Your task to perform on an android device: turn on javascript in the chrome app Image 0: 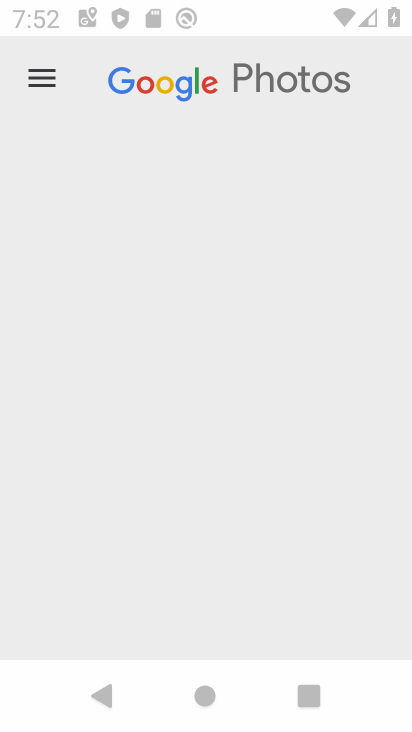
Step 0: press back button
Your task to perform on an android device: turn on javascript in the chrome app Image 1: 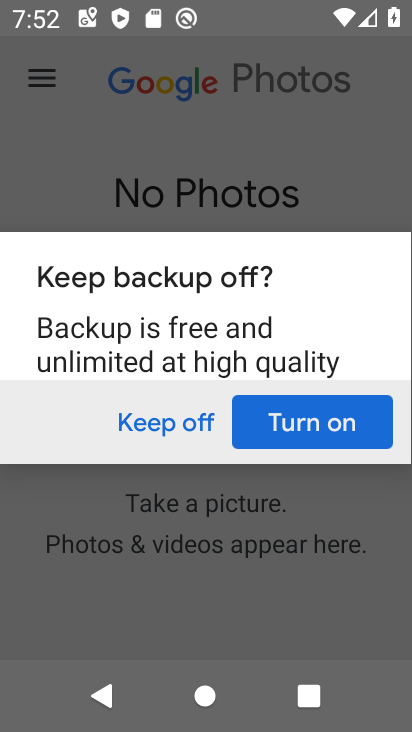
Step 1: press back button
Your task to perform on an android device: turn on javascript in the chrome app Image 2: 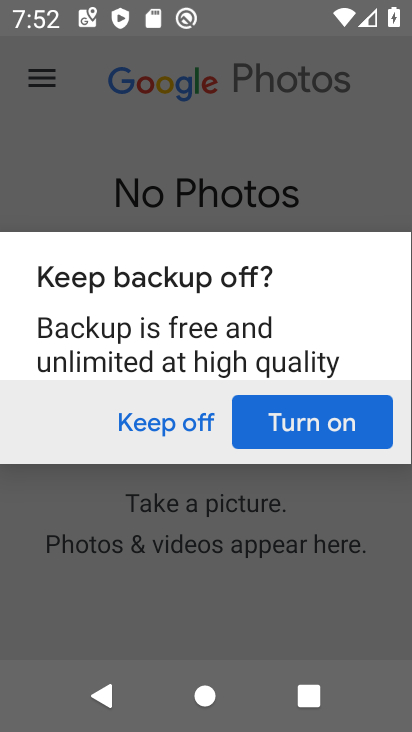
Step 2: press back button
Your task to perform on an android device: turn on javascript in the chrome app Image 3: 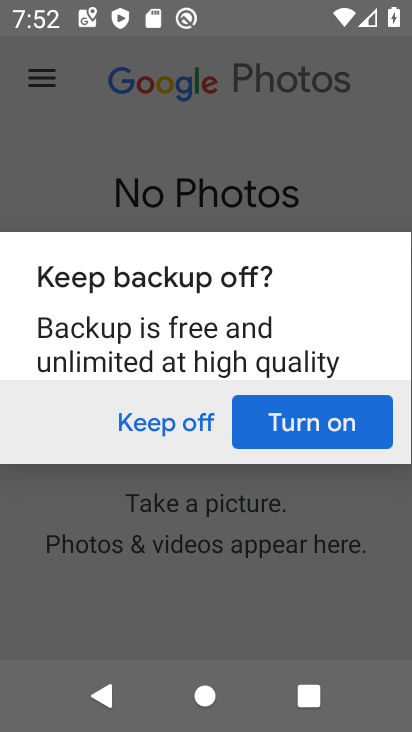
Step 3: press home button
Your task to perform on an android device: turn on javascript in the chrome app Image 4: 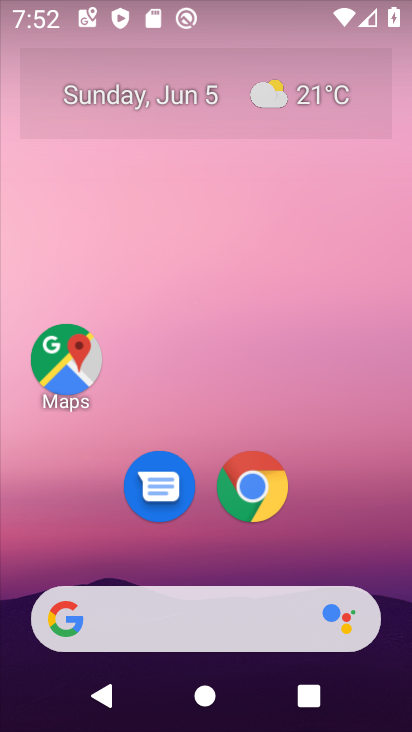
Step 4: click (264, 484)
Your task to perform on an android device: turn on javascript in the chrome app Image 5: 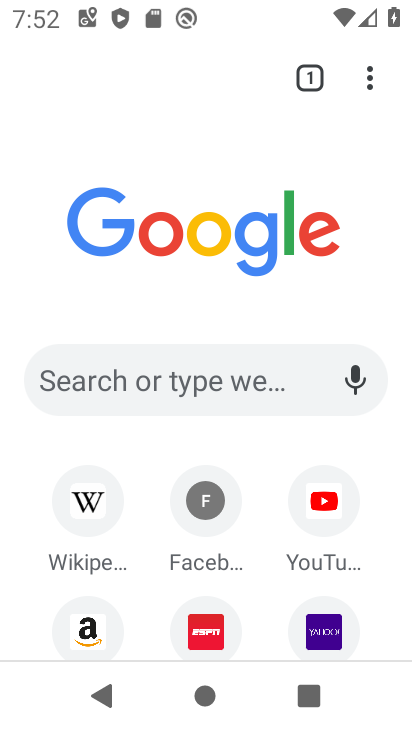
Step 5: drag from (372, 76) to (122, 552)
Your task to perform on an android device: turn on javascript in the chrome app Image 6: 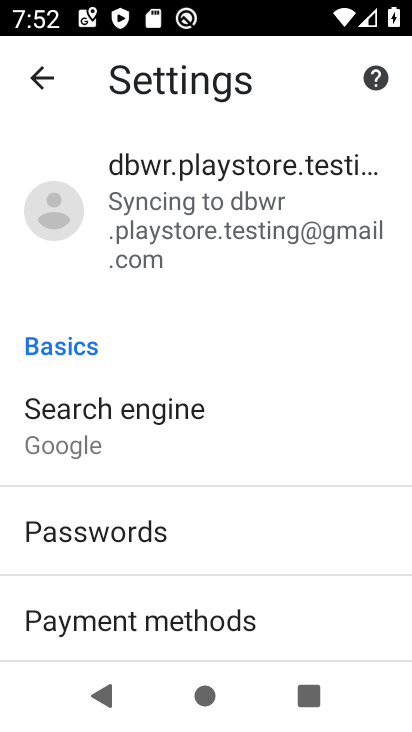
Step 6: drag from (126, 587) to (236, 72)
Your task to perform on an android device: turn on javascript in the chrome app Image 7: 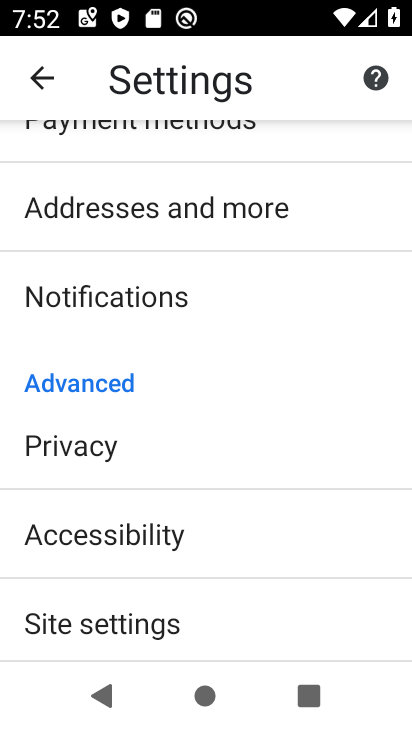
Step 7: click (143, 626)
Your task to perform on an android device: turn on javascript in the chrome app Image 8: 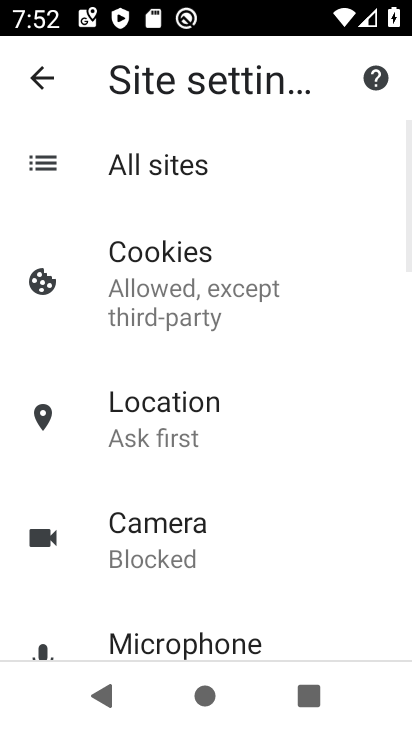
Step 8: drag from (164, 610) to (248, 191)
Your task to perform on an android device: turn on javascript in the chrome app Image 9: 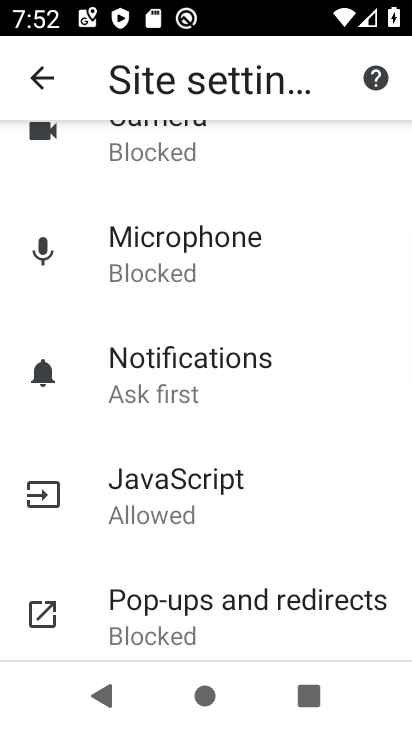
Step 9: click (139, 493)
Your task to perform on an android device: turn on javascript in the chrome app Image 10: 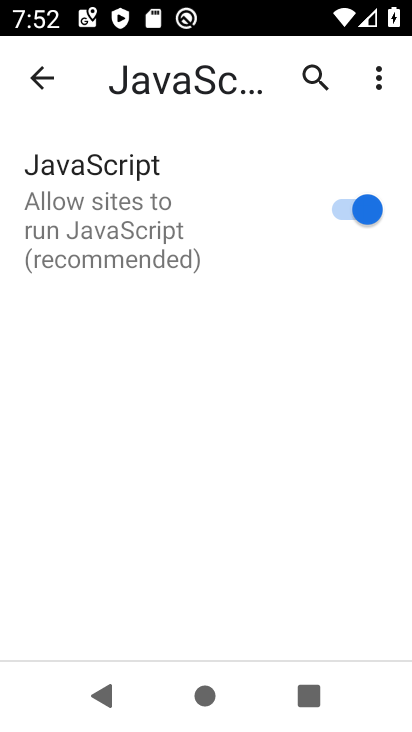
Step 10: task complete